Your task to perform on an android device: change keyboard looks Image 0: 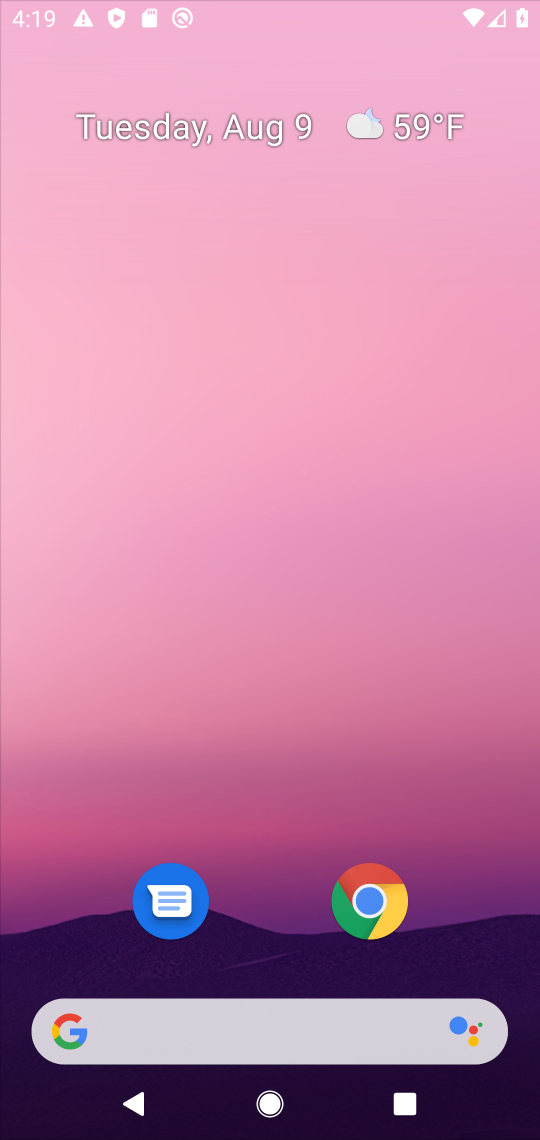
Step 0: press home button
Your task to perform on an android device: change keyboard looks Image 1: 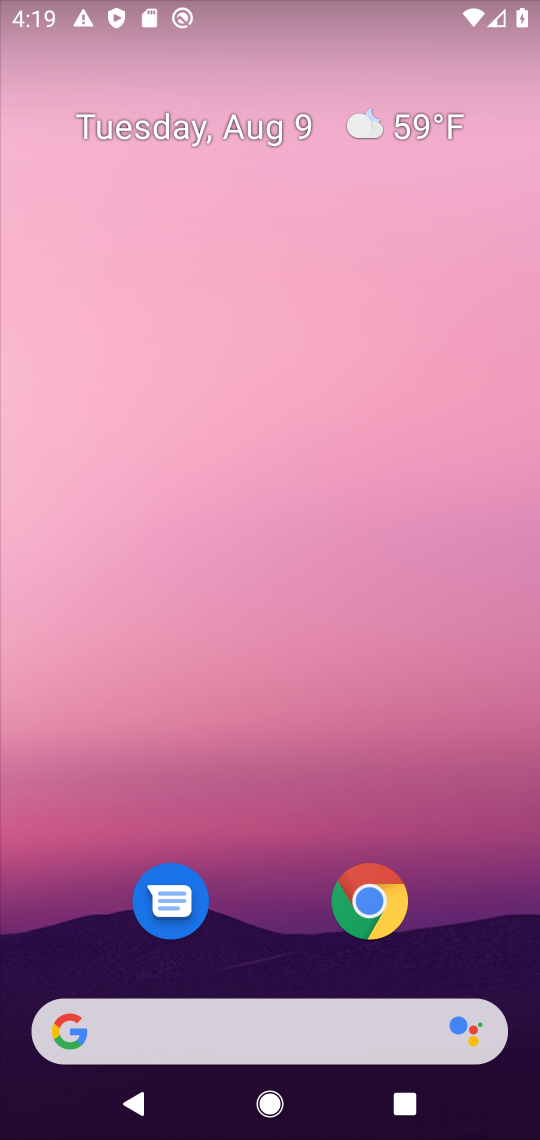
Step 1: drag from (296, 745) to (273, 86)
Your task to perform on an android device: change keyboard looks Image 2: 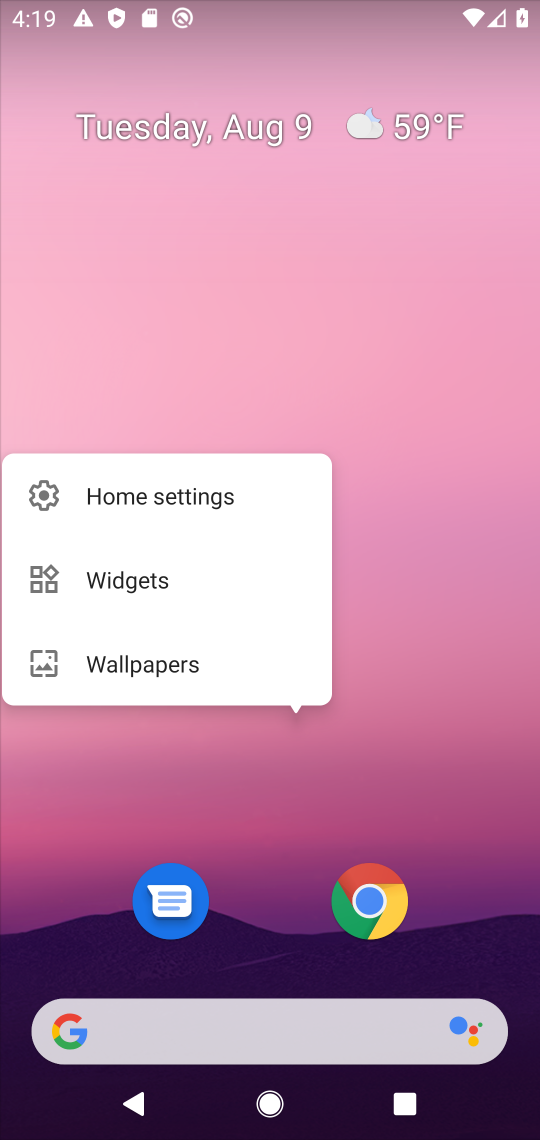
Step 2: click (484, 489)
Your task to perform on an android device: change keyboard looks Image 3: 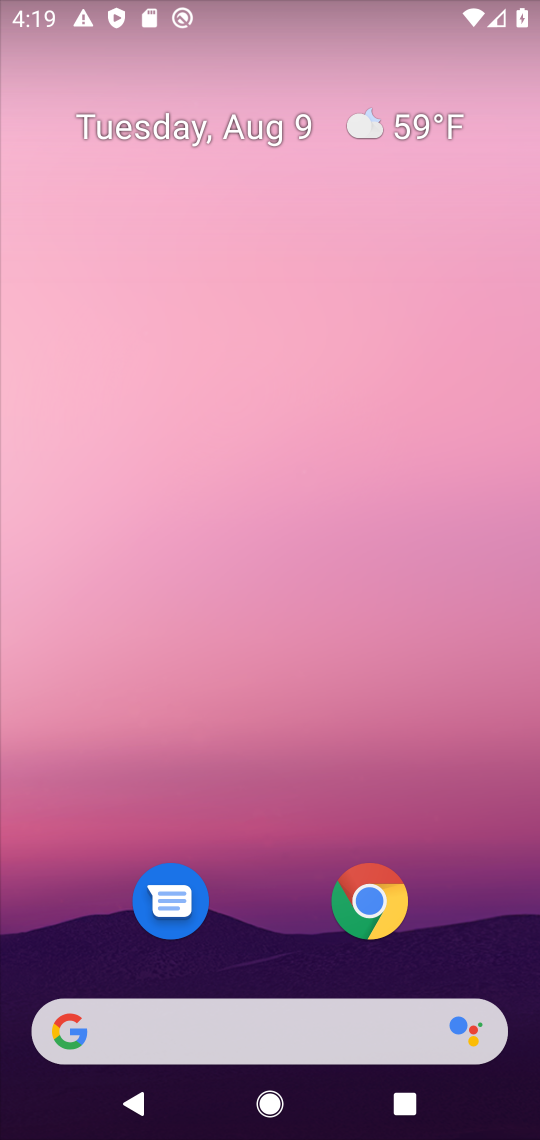
Step 3: drag from (450, 963) to (397, 6)
Your task to perform on an android device: change keyboard looks Image 4: 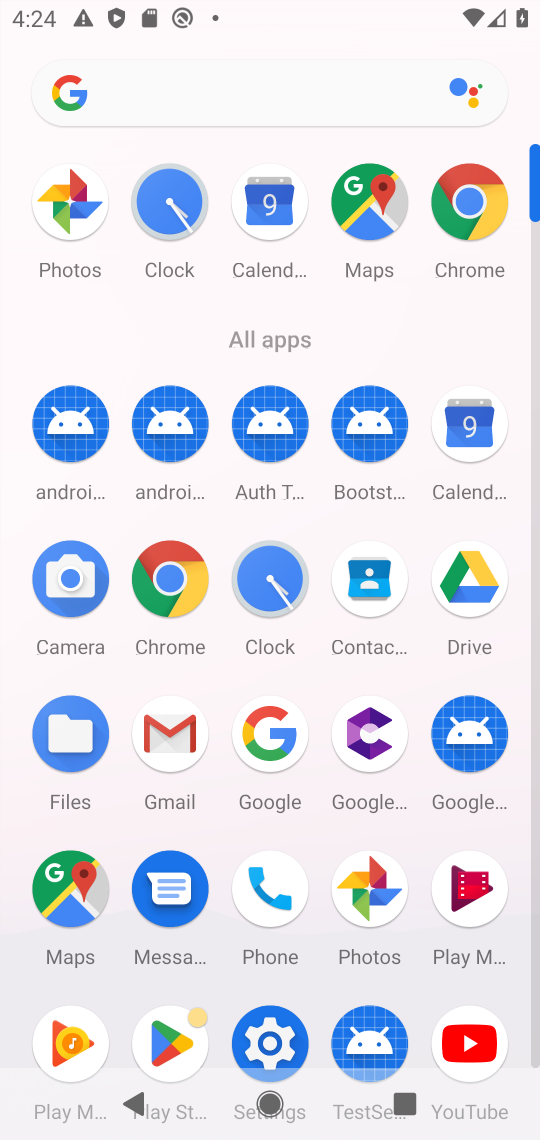
Step 4: click (255, 1031)
Your task to perform on an android device: change keyboard looks Image 5: 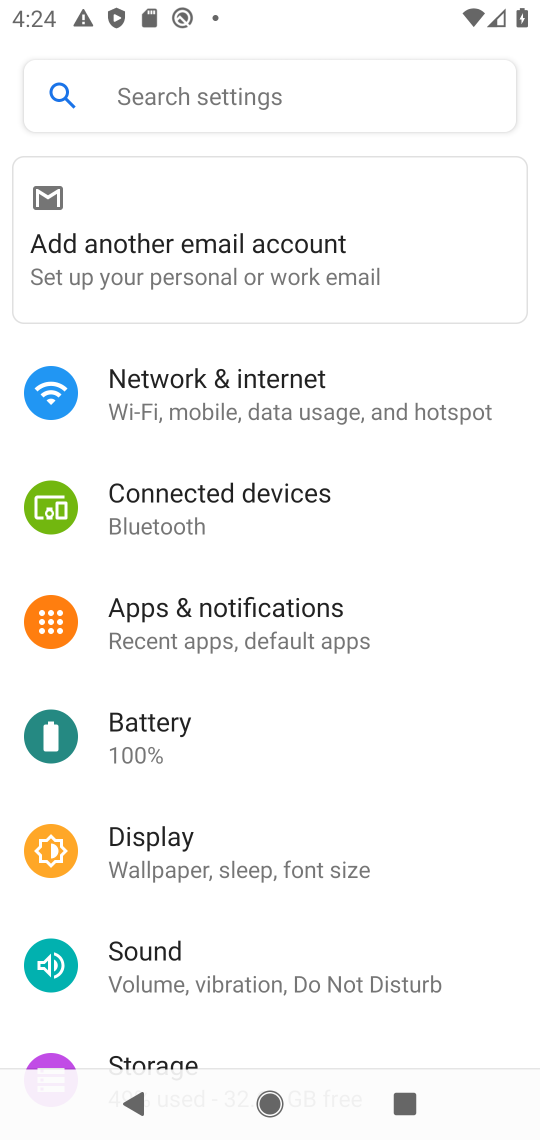
Step 5: drag from (222, 932) to (124, 88)
Your task to perform on an android device: change keyboard looks Image 6: 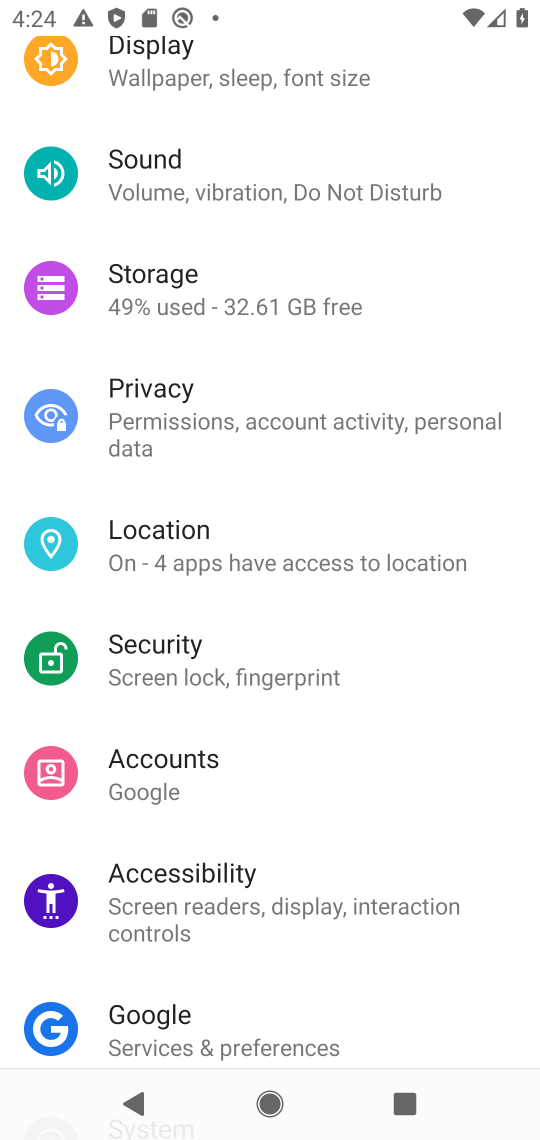
Step 6: drag from (270, 918) to (271, 10)
Your task to perform on an android device: change keyboard looks Image 7: 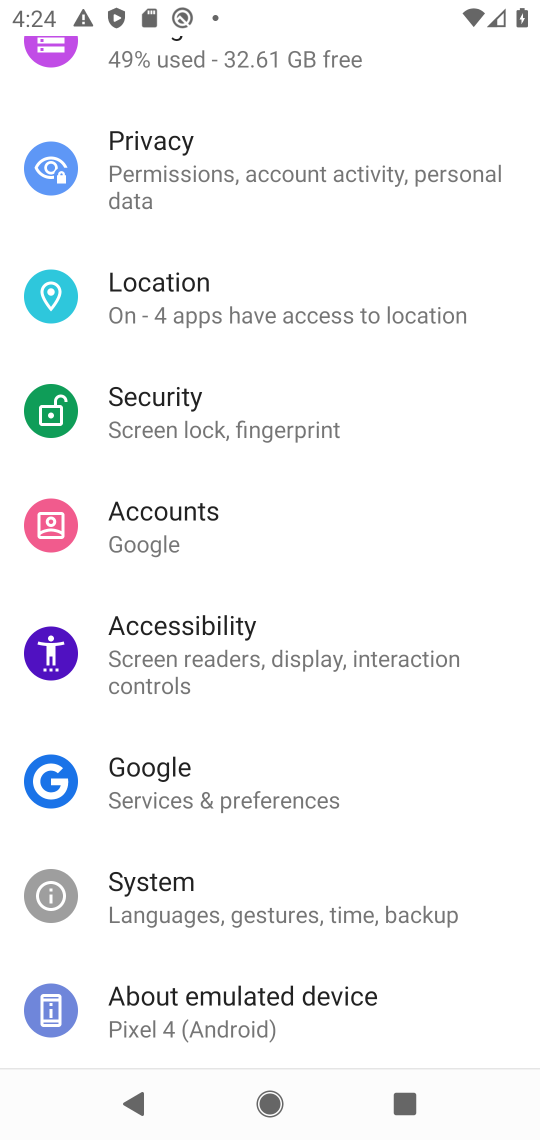
Step 7: click (205, 919)
Your task to perform on an android device: change keyboard looks Image 8: 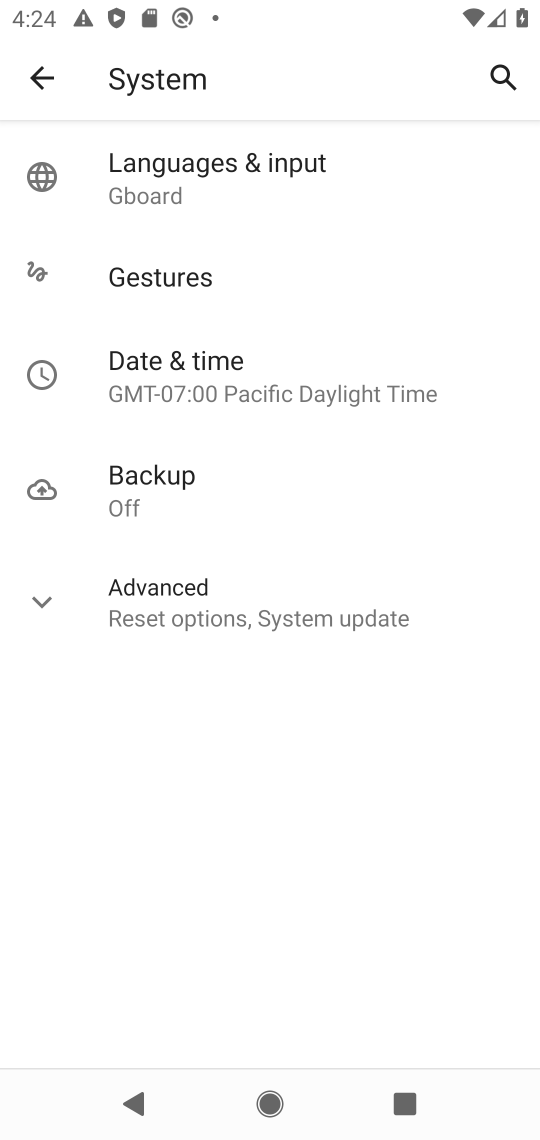
Step 8: click (219, 185)
Your task to perform on an android device: change keyboard looks Image 9: 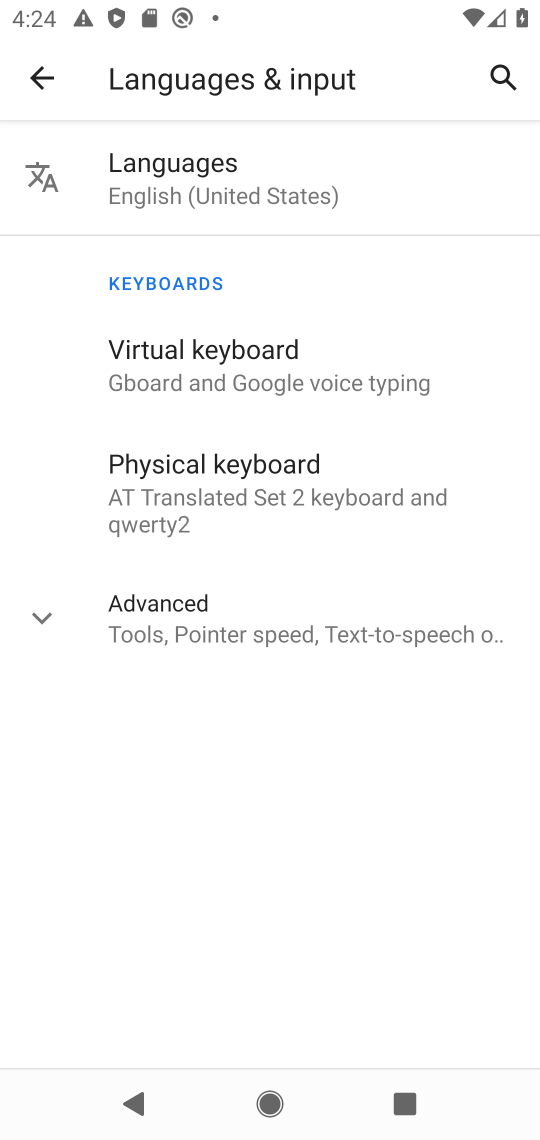
Step 9: click (192, 346)
Your task to perform on an android device: change keyboard looks Image 10: 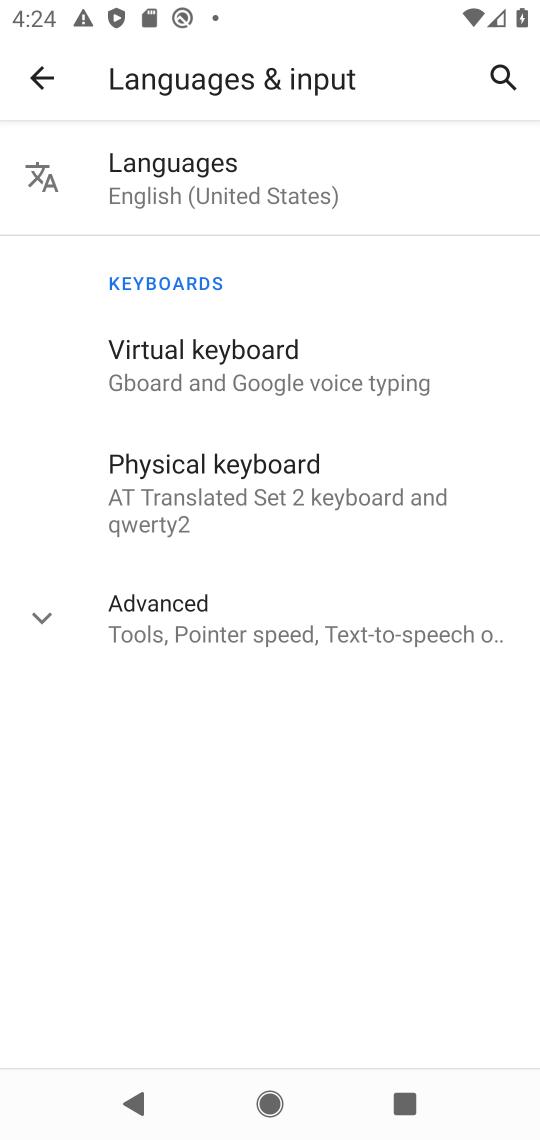
Step 10: click (185, 161)
Your task to perform on an android device: change keyboard looks Image 11: 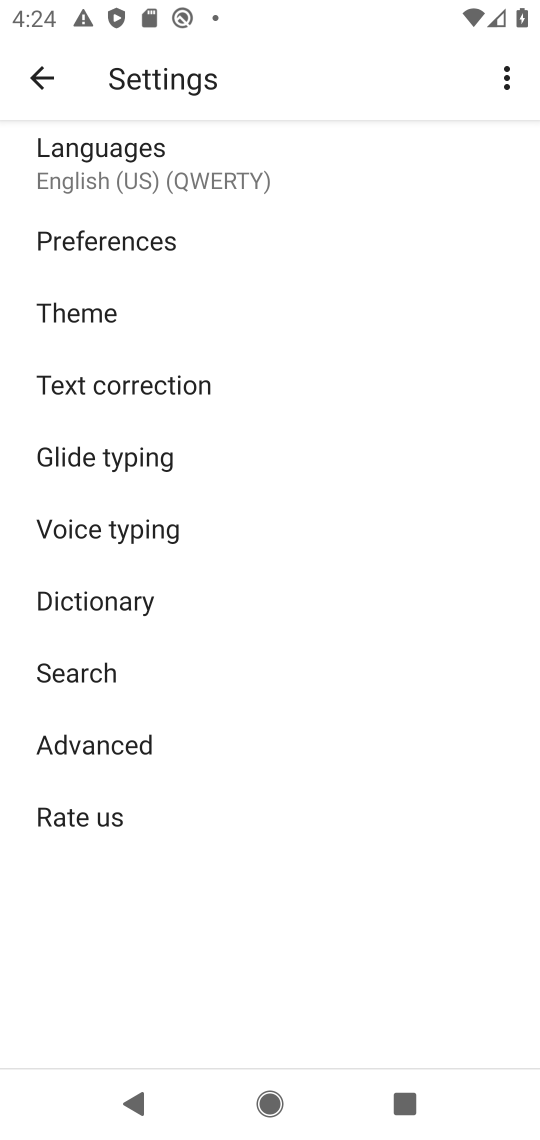
Step 11: click (210, 273)
Your task to perform on an android device: change keyboard looks Image 12: 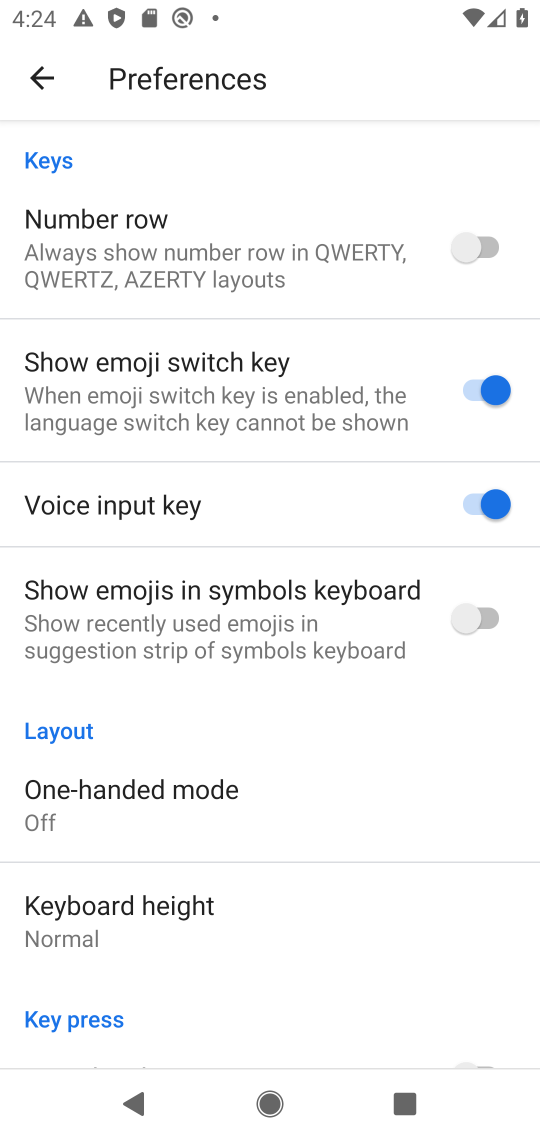
Step 12: click (36, 72)
Your task to perform on an android device: change keyboard looks Image 13: 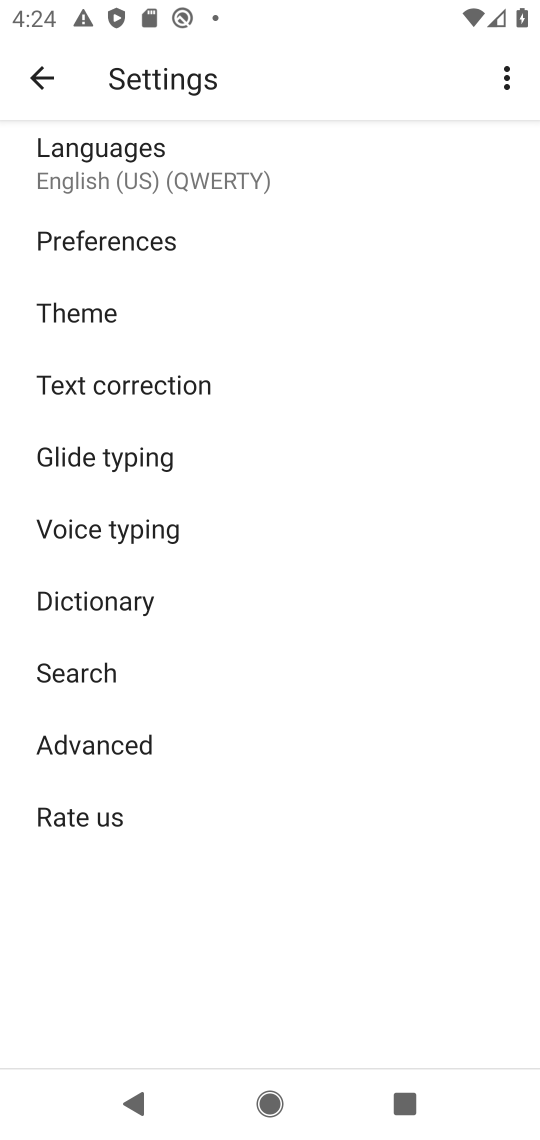
Step 13: click (127, 316)
Your task to perform on an android device: change keyboard looks Image 14: 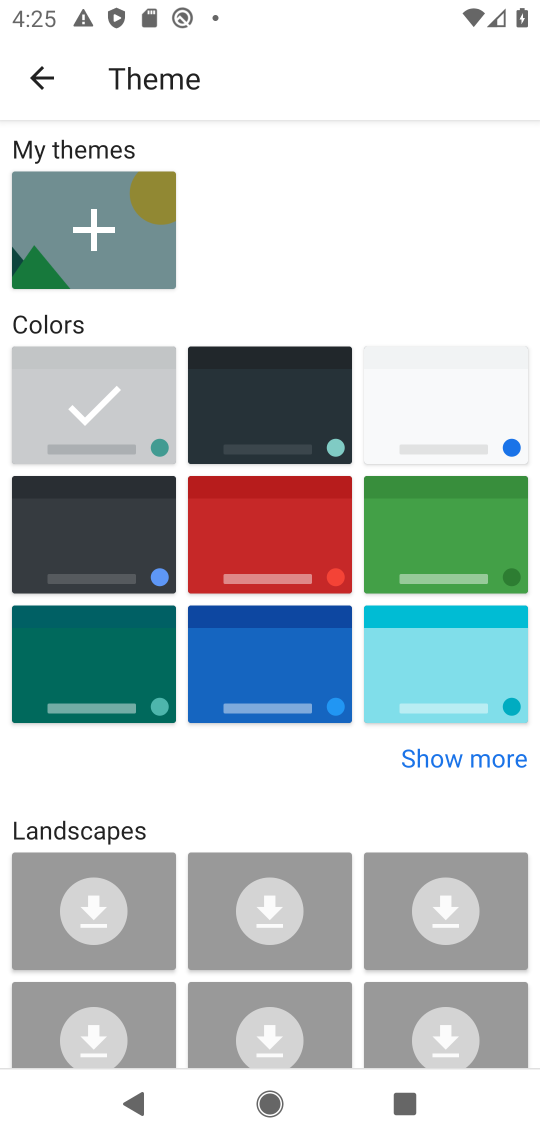
Step 14: click (445, 702)
Your task to perform on an android device: change keyboard looks Image 15: 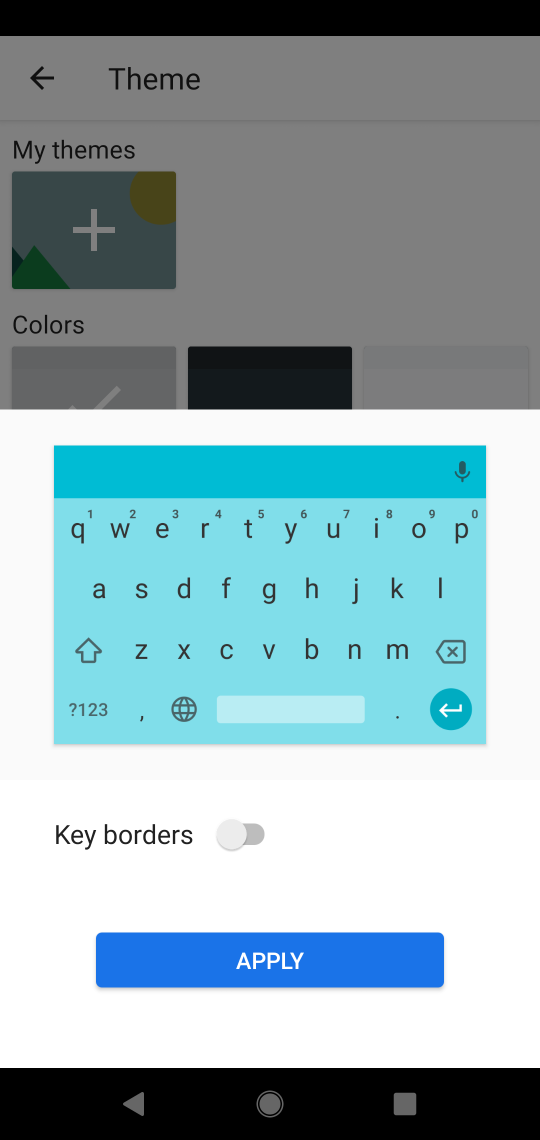
Step 15: click (379, 962)
Your task to perform on an android device: change keyboard looks Image 16: 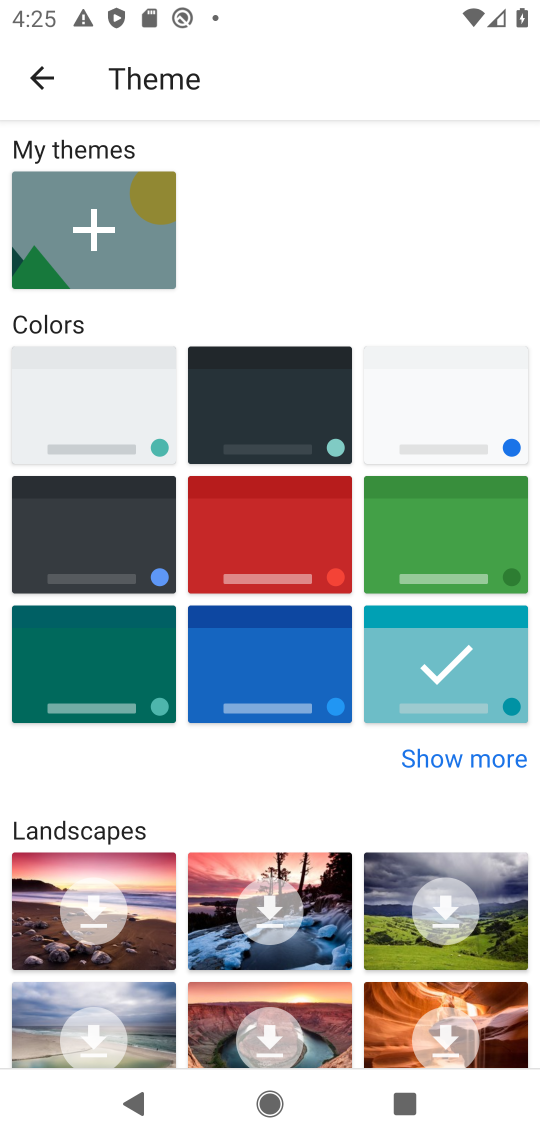
Step 16: task complete